Your task to perform on an android device: Go to notification settings Image 0: 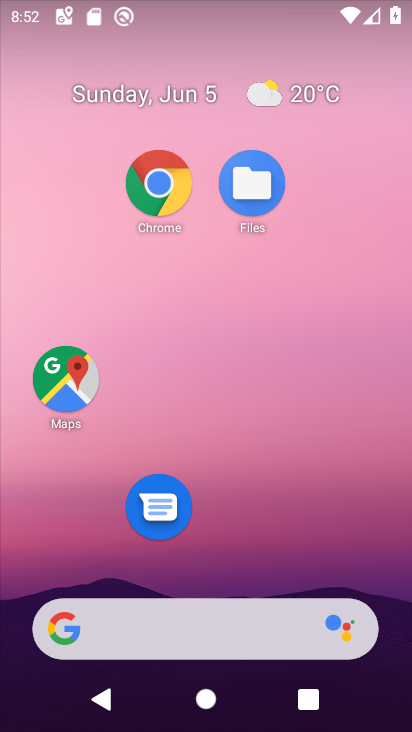
Step 0: drag from (219, 591) to (161, 88)
Your task to perform on an android device: Go to notification settings Image 1: 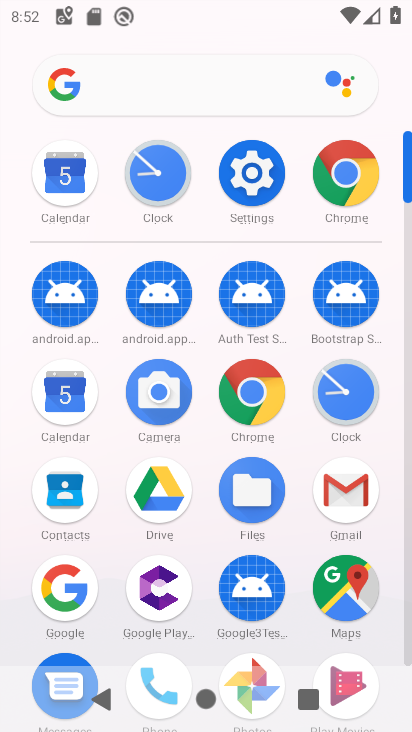
Step 1: click (249, 167)
Your task to perform on an android device: Go to notification settings Image 2: 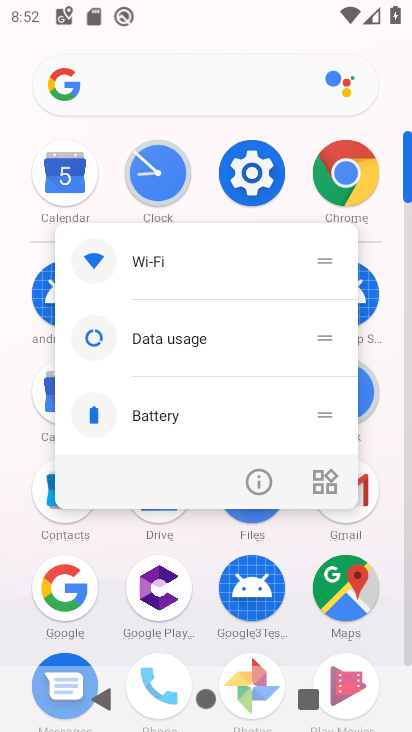
Step 2: click (249, 167)
Your task to perform on an android device: Go to notification settings Image 3: 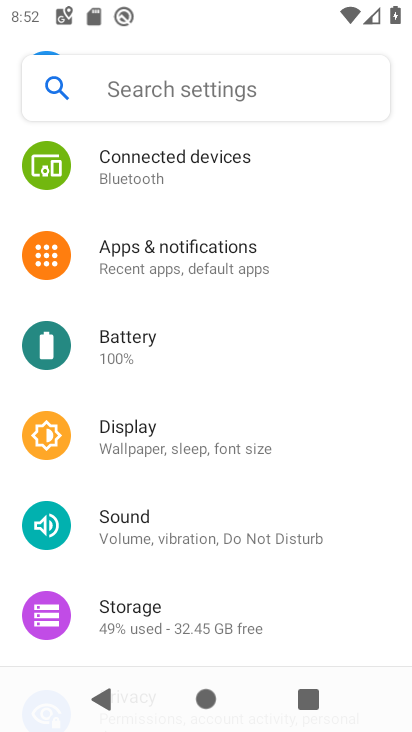
Step 3: click (201, 240)
Your task to perform on an android device: Go to notification settings Image 4: 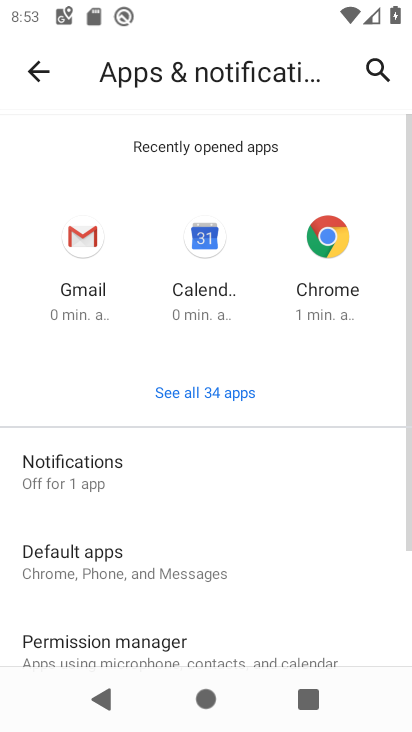
Step 4: click (132, 452)
Your task to perform on an android device: Go to notification settings Image 5: 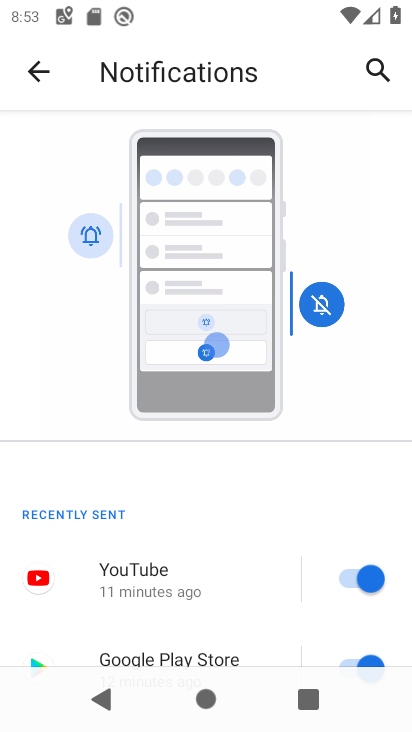
Step 5: task complete